Your task to perform on an android device: set the stopwatch Image 0: 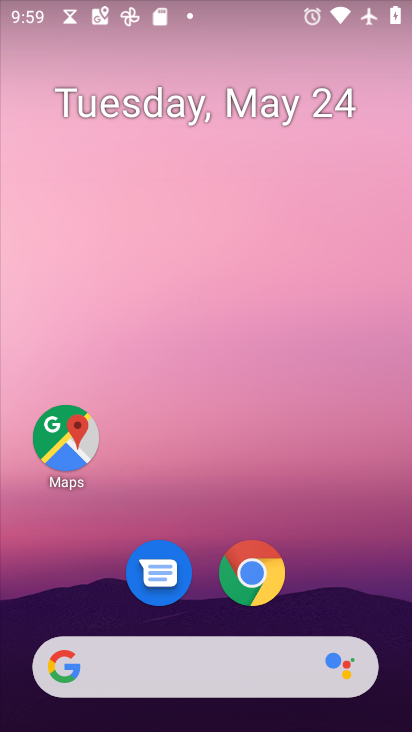
Step 0: drag from (353, 581) to (309, 81)
Your task to perform on an android device: set the stopwatch Image 1: 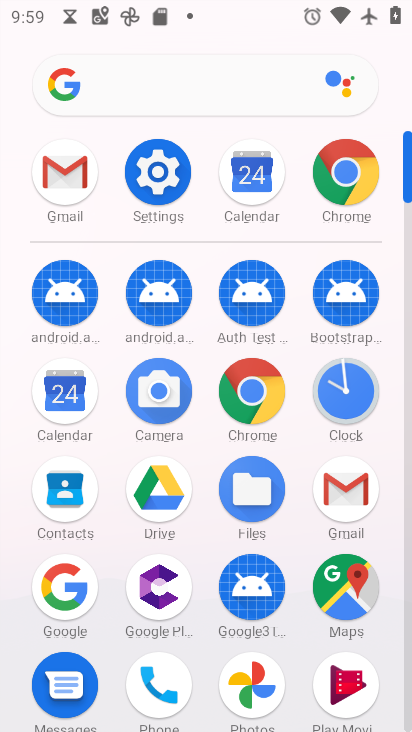
Step 1: click (353, 390)
Your task to perform on an android device: set the stopwatch Image 2: 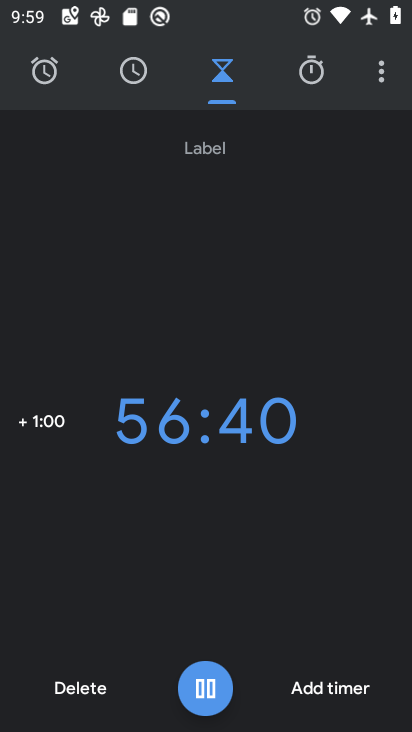
Step 2: click (321, 89)
Your task to perform on an android device: set the stopwatch Image 3: 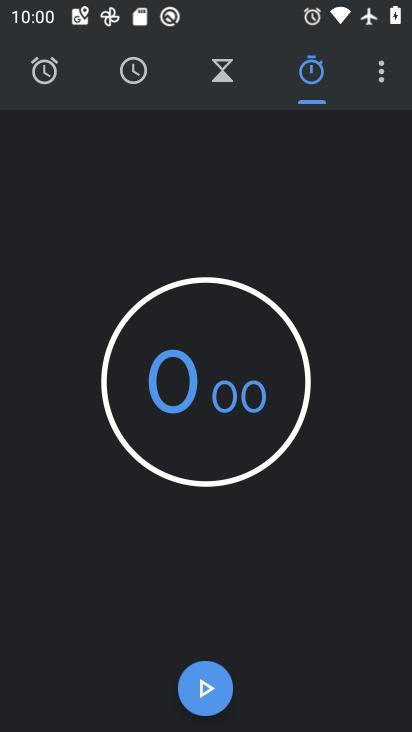
Step 3: click (207, 695)
Your task to perform on an android device: set the stopwatch Image 4: 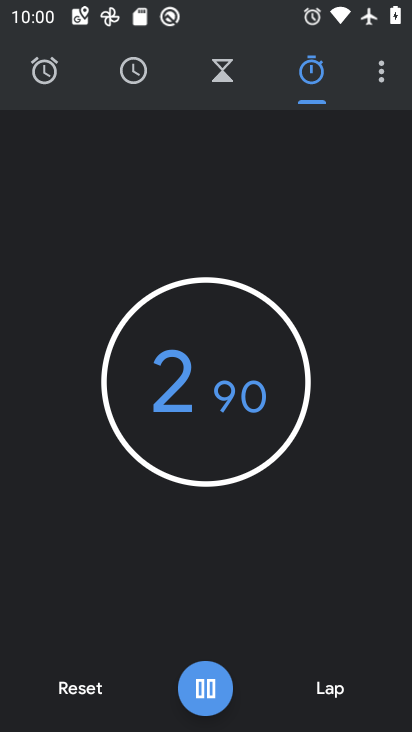
Step 4: task complete